Your task to perform on an android device: star an email in the gmail app Image 0: 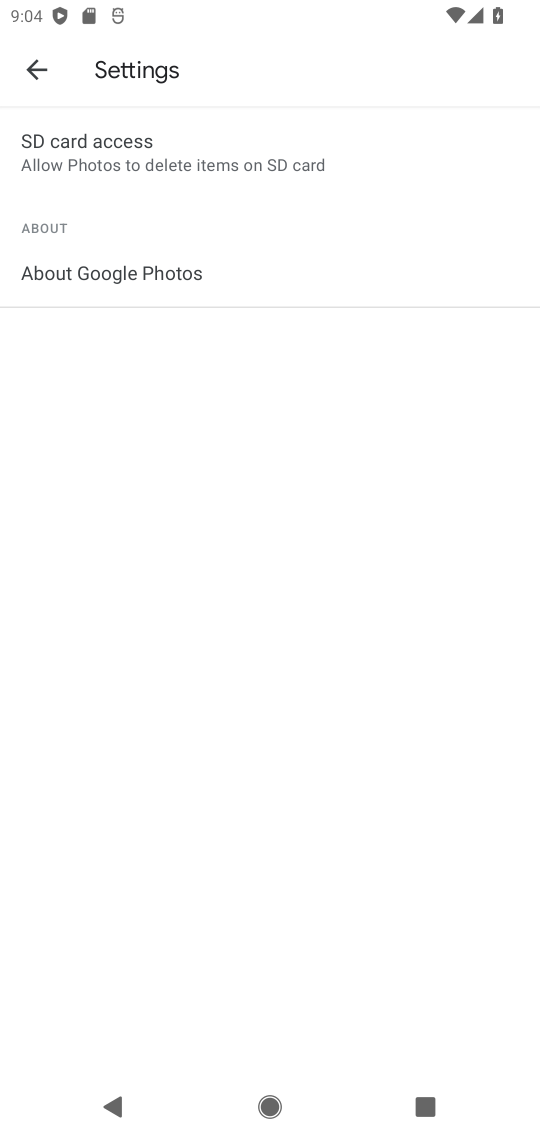
Step 0: task complete